Your task to perform on an android device: move an email to a new category in the gmail app Image 0: 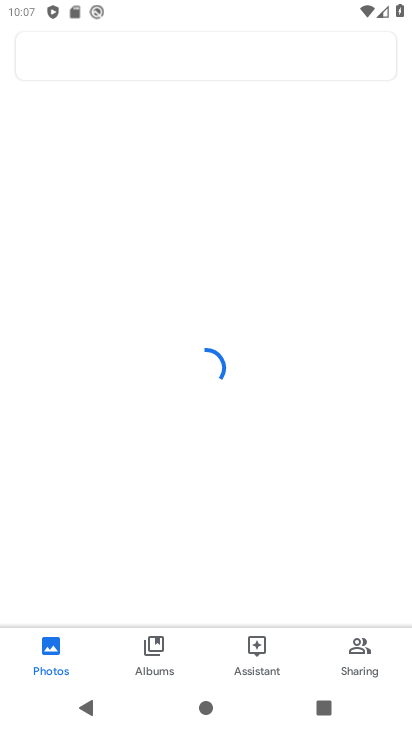
Step 0: press home button
Your task to perform on an android device: move an email to a new category in the gmail app Image 1: 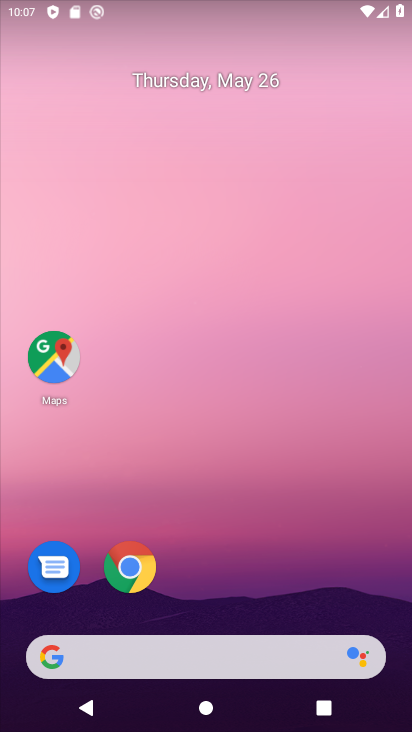
Step 1: drag from (247, 570) to (271, 18)
Your task to perform on an android device: move an email to a new category in the gmail app Image 2: 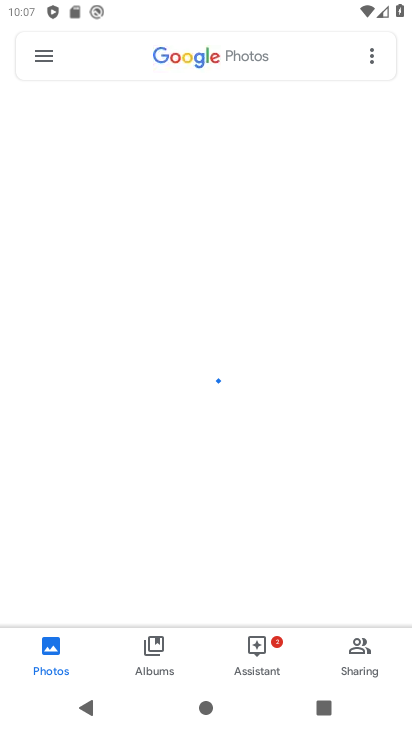
Step 2: press home button
Your task to perform on an android device: move an email to a new category in the gmail app Image 3: 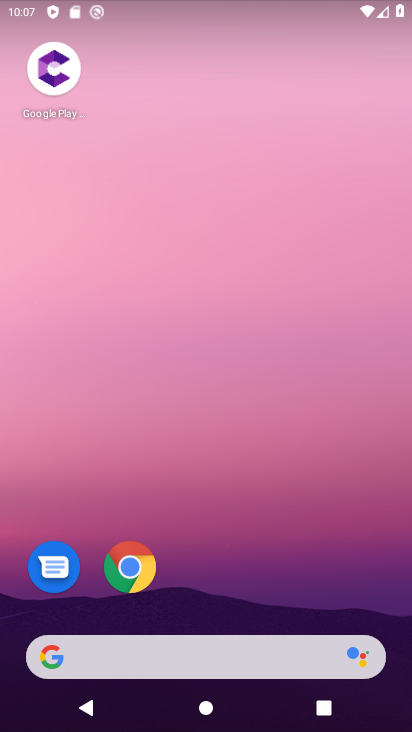
Step 3: drag from (230, 582) to (265, 9)
Your task to perform on an android device: move an email to a new category in the gmail app Image 4: 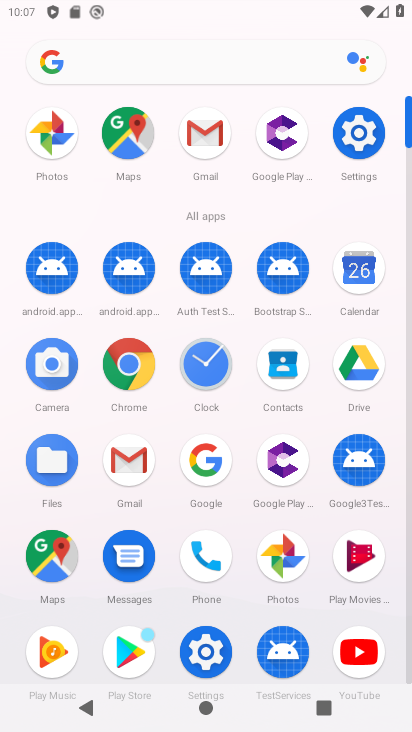
Step 4: click (129, 457)
Your task to perform on an android device: move an email to a new category in the gmail app Image 5: 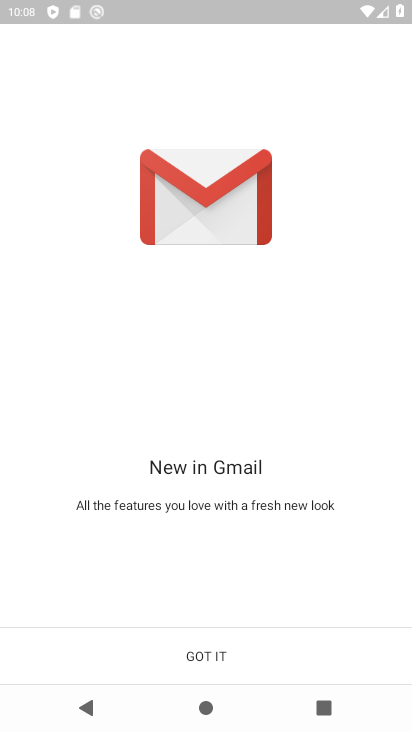
Step 5: click (154, 643)
Your task to perform on an android device: move an email to a new category in the gmail app Image 6: 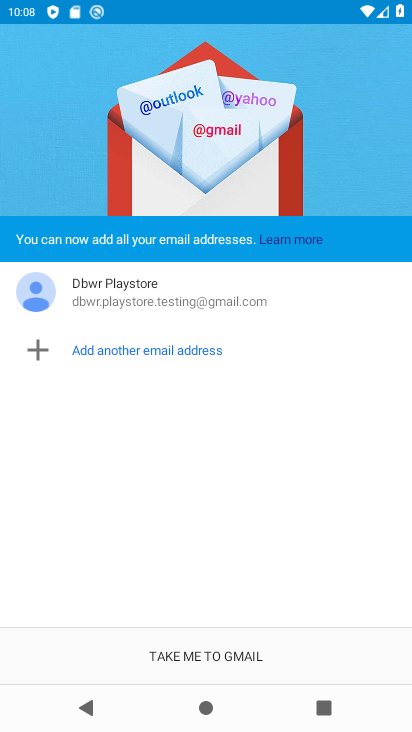
Step 6: click (145, 652)
Your task to perform on an android device: move an email to a new category in the gmail app Image 7: 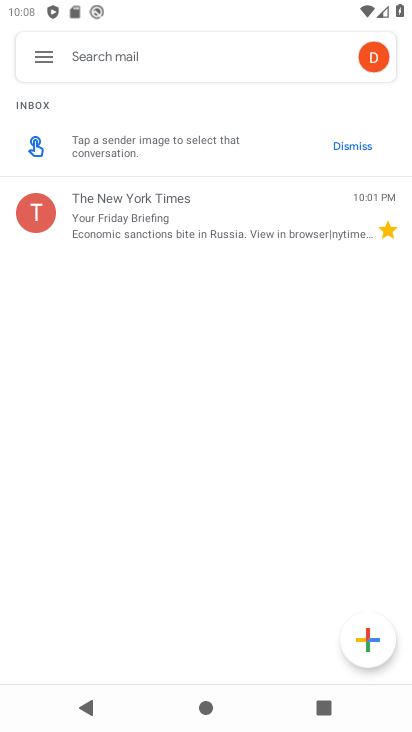
Step 7: click (155, 227)
Your task to perform on an android device: move an email to a new category in the gmail app Image 8: 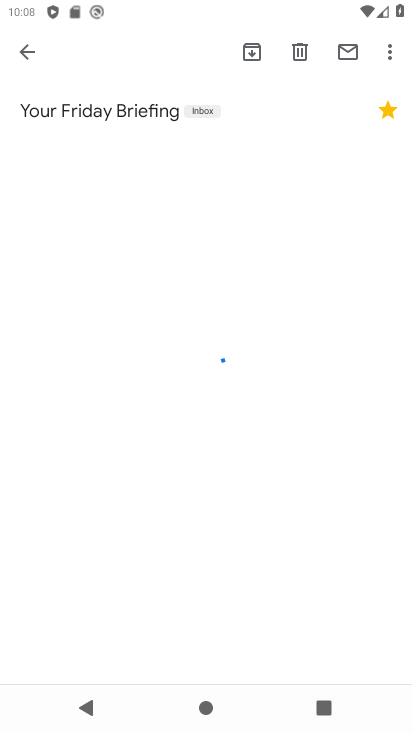
Step 8: click (379, 49)
Your task to perform on an android device: move an email to a new category in the gmail app Image 9: 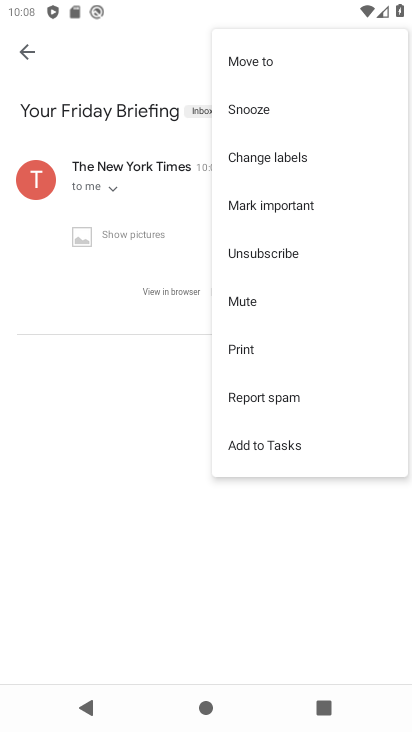
Step 9: click (278, 204)
Your task to perform on an android device: move an email to a new category in the gmail app Image 10: 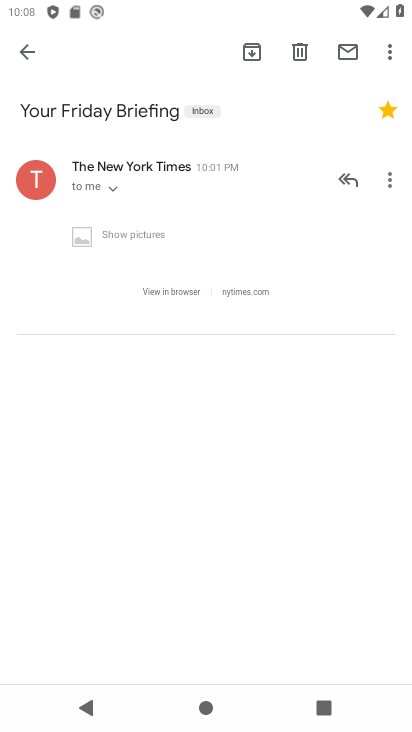
Step 10: task complete